Your task to perform on an android device: Open network settings Image 0: 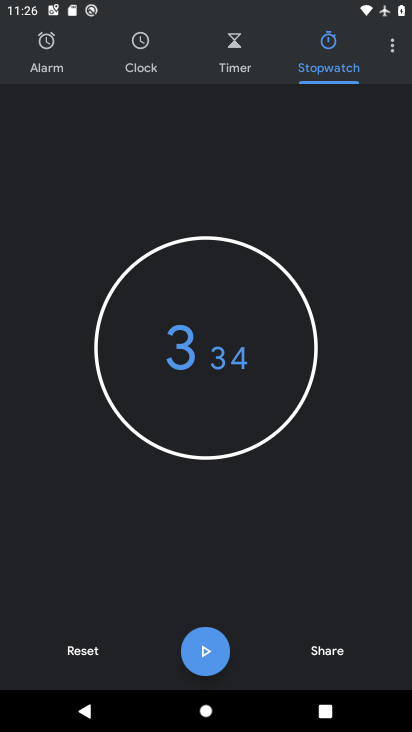
Step 0: press home button
Your task to perform on an android device: Open network settings Image 1: 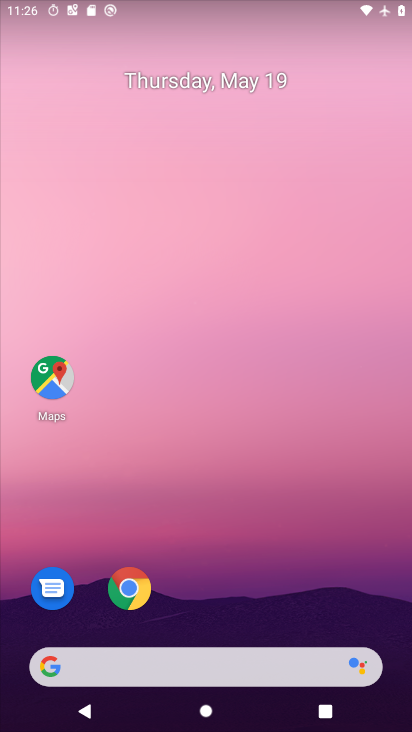
Step 1: drag from (171, 663) to (297, 150)
Your task to perform on an android device: Open network settings Image 2: 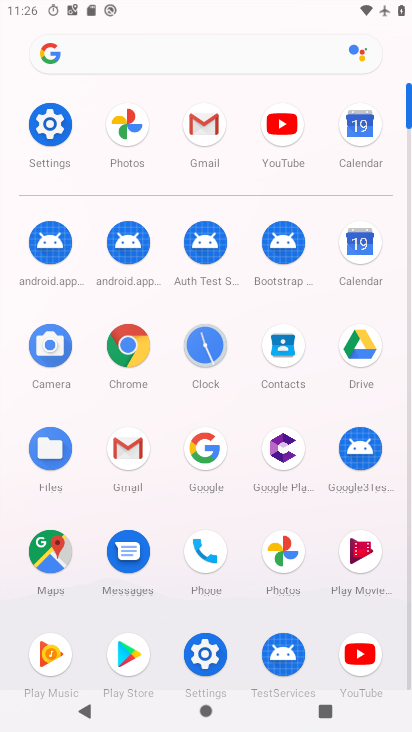
Step 2: click (48, 133)
Your task to perform on an android device: Open network settings Image 3: 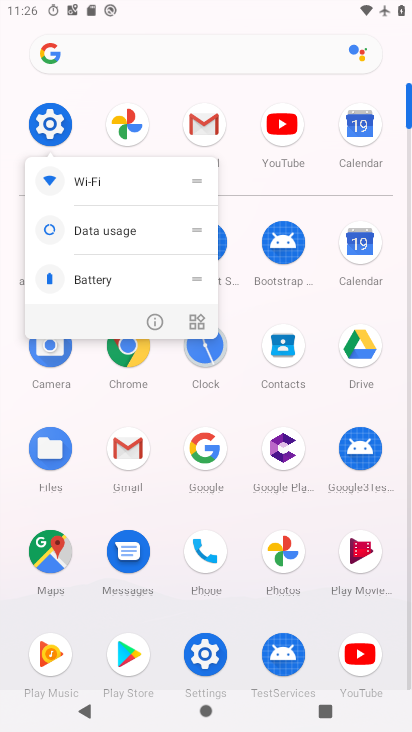
Step 3: click (57, 126)
Your task to perform on an android device: Open network settings Image 4: 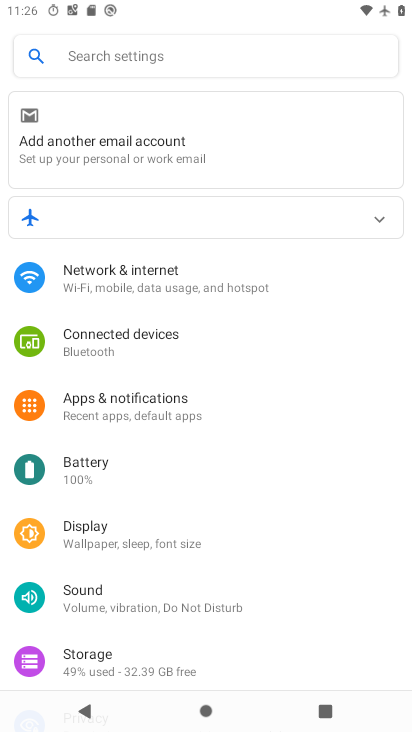
Step 4: click (147, 264)
Your task to perform on an android device: Open network settings Image 5: 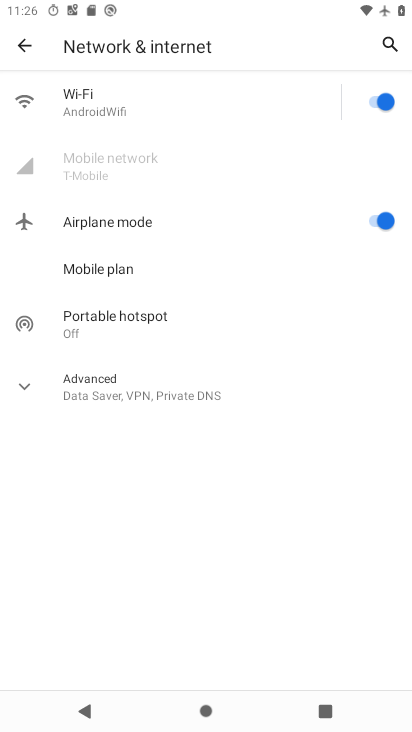
Step 5: task complete